Your task to perform on an android device: set an alarm Image 0: 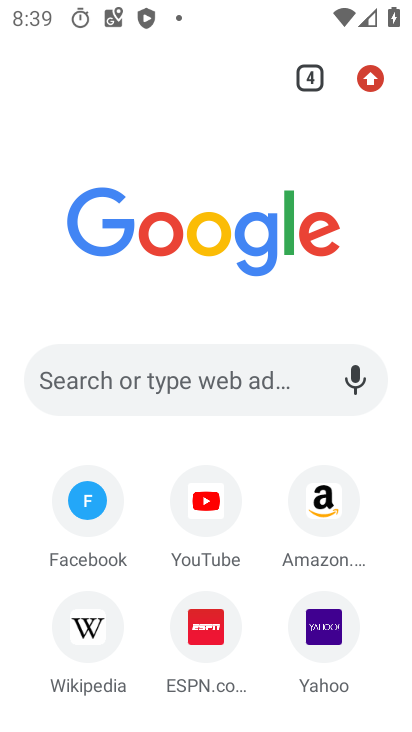
Step 0: press home button
Your task to perform on an android device: set an alarm Image 1: 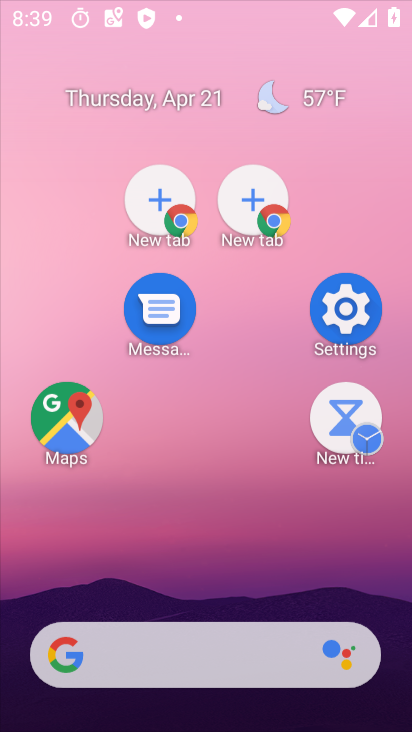
Step 1: press home button
Your task to perform on an android device: set an alarm Image 2: 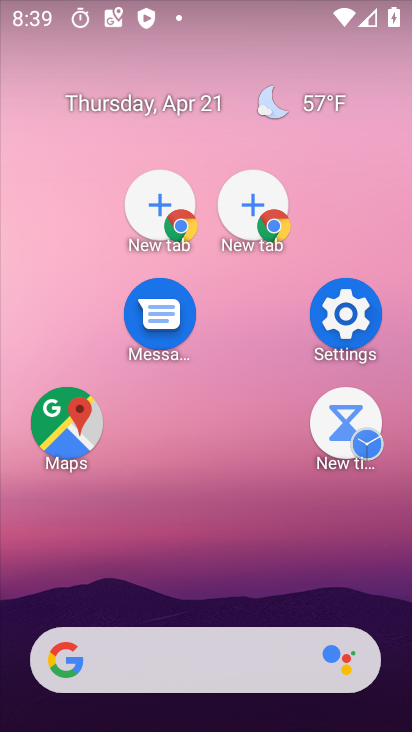
Step 2: drag from (269, 674) to (166, 81)
Your task to perform on an android device: set an alarm Image 3: 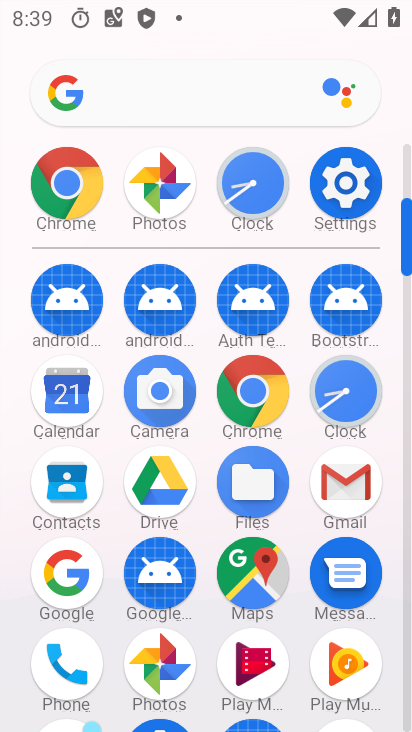
Step 3: drag from (271, 612) to (180, 99)
Your task to perform on an android device: set an alarm Image 4: 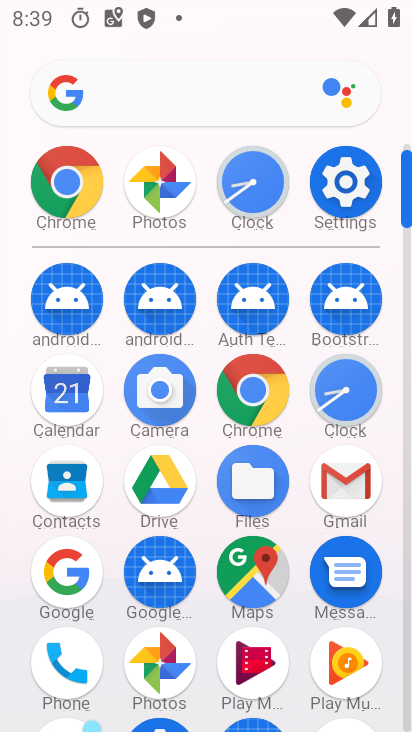
Step 4: click (341, 390)
Your task to perform on an android device: set an alarm Image 5: 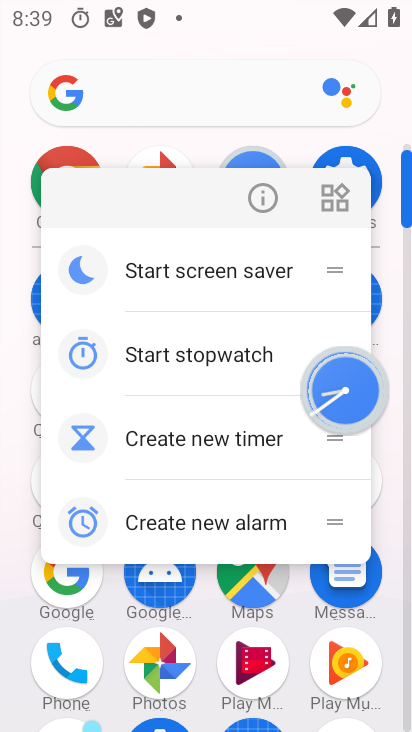
Step 5: click (343, 386)
Your task to perform on an android device: set an alarm Image 6: 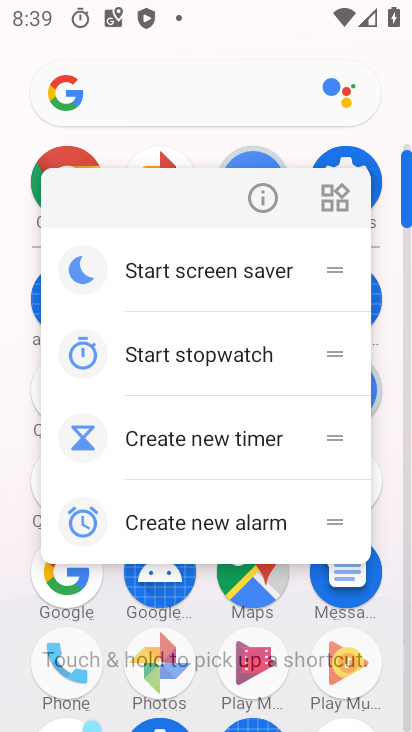
Step 6: click (348, 387)
Your task to perform on an android device: set an alarm Image 7: 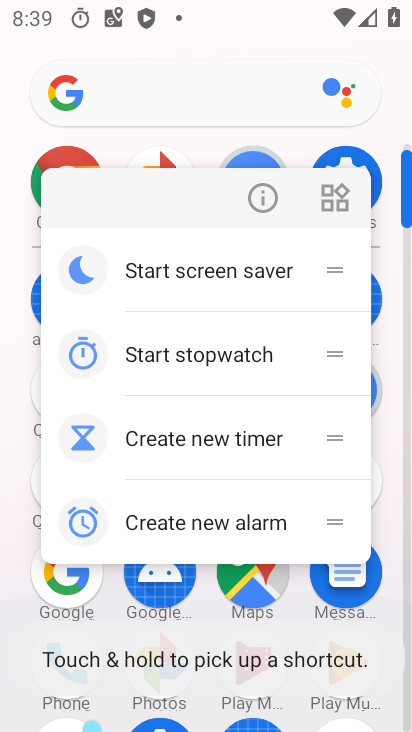
Step 7: click (383, 368)
Your task to perform on an android device: set an alarm Image 8: 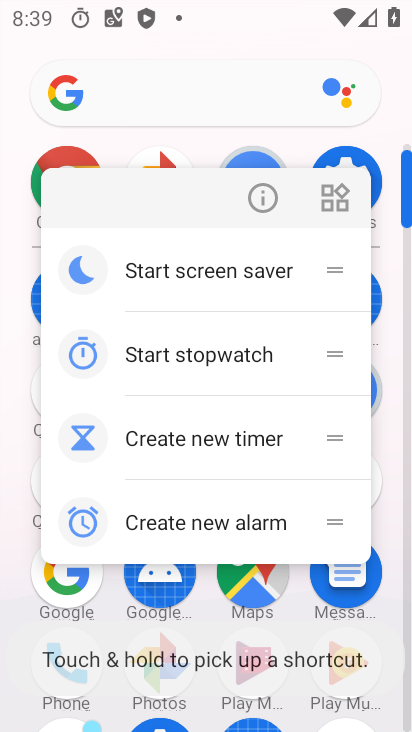
Step 8: click (377, 397)
Your task to perform on an android device: set an alarm Image 9: 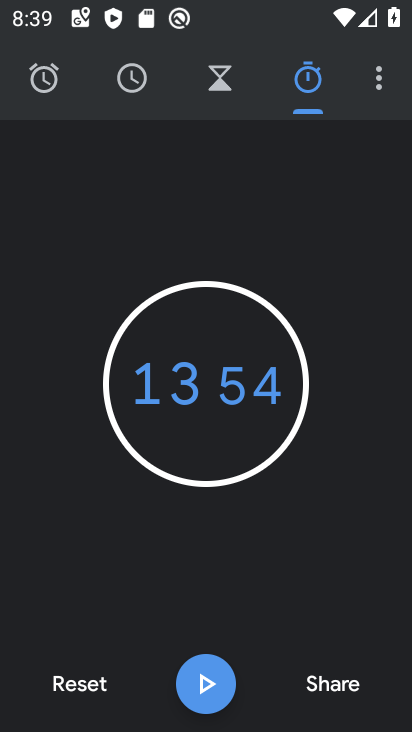
Step 9: click (32, 87)
Your task to perform on an android device: set an alarm Image 10: 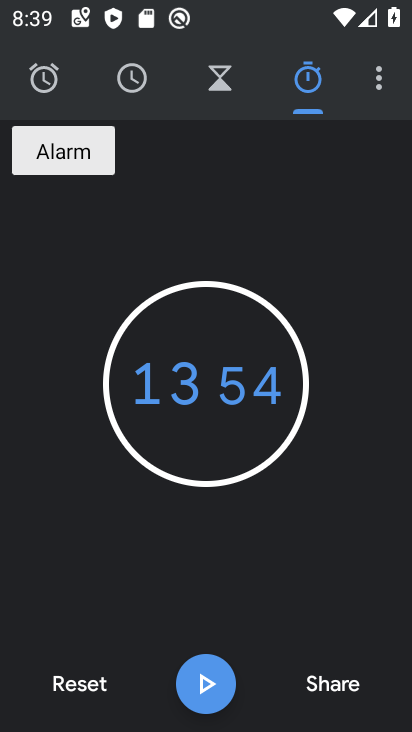
Step 10: click (35, 83)
Your task to perform on an android device: set an alarm Image 11: 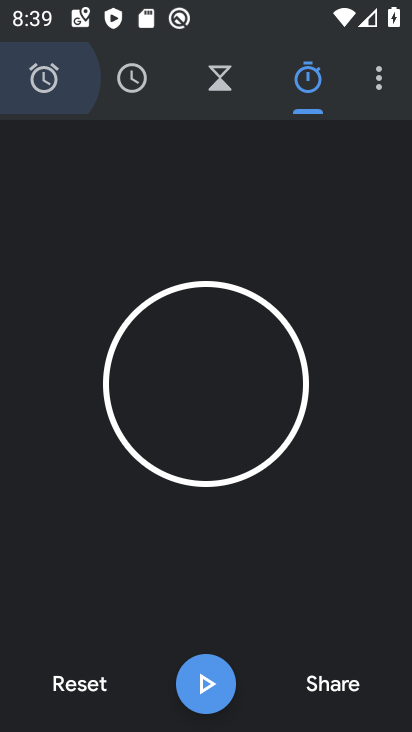
Step 11: click (36, 81)
Your task to perform on an android device: set an alarm Image 12: 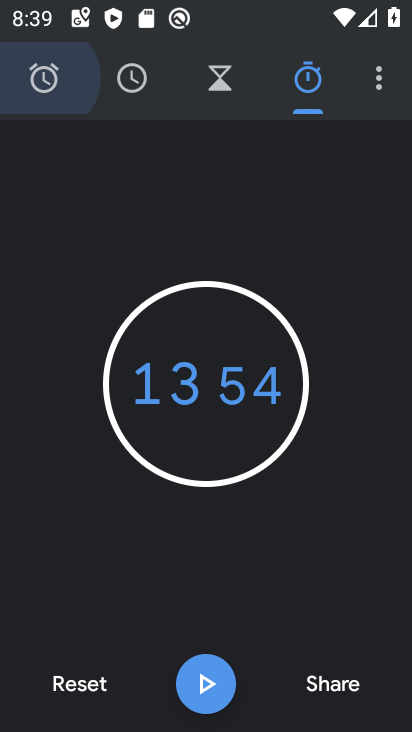
Step 12: click (43, 86)
Your task to perform on an android device: set an alarm Image 13: 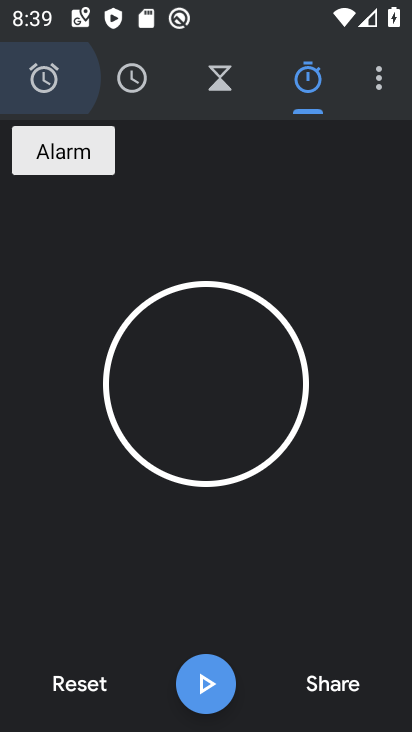
Step 13: click (51, 89)
Your task to perform on an android device: set an alarm Image 14: 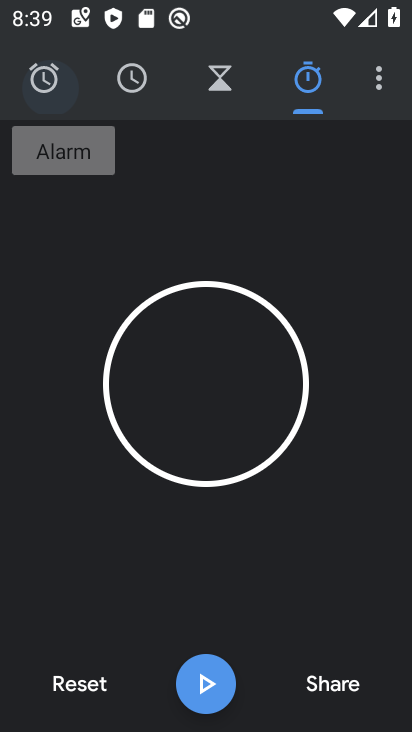
Step 14: click (51, 88)
Your task to perform on an android device: set an alarm Image 15: 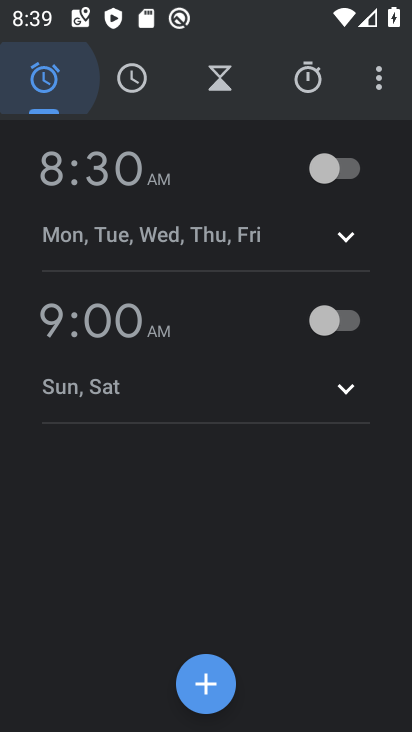
Step 15: click (47, 86)
Your task to perform on an android device: set an alarm Image 16: 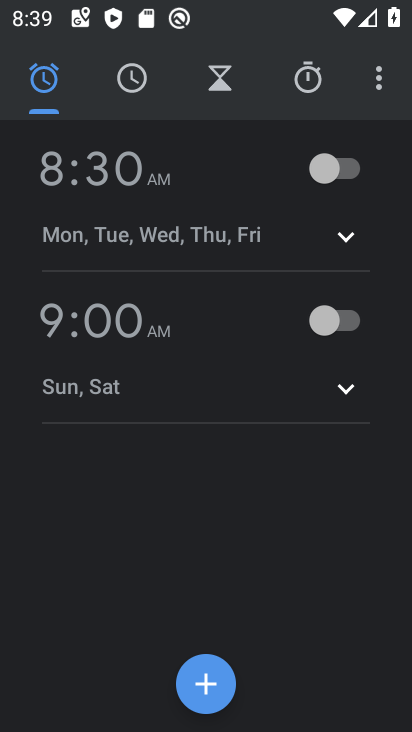
Step 16: click (318, 172)
Your task to perform on an android device: set an alarm Image 17: 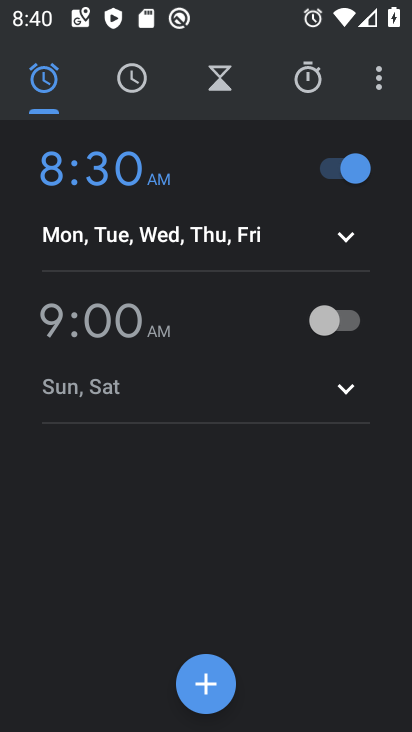
Step 17: task complete